Your task to perform on an android device: Open calendar and show me the third week of next month Image 0: 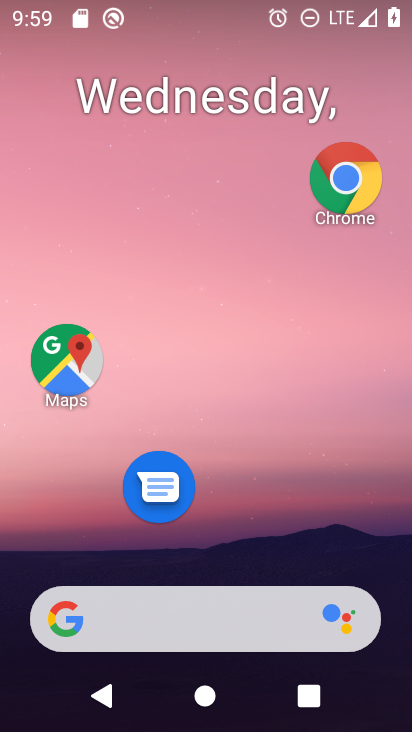
Step 0: drag from (203, 619) to (203, 43)
Your task to perform on an android device: Open calendar and show me the third week of next month Image 1: 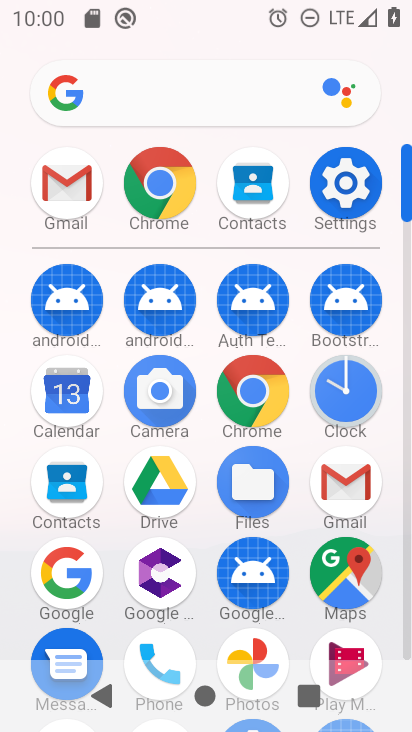
Step 1: drag from (156, 508) to (156, 222)
Your task to perform on an android device: Open calendar and show me the third week of next month Image 2: 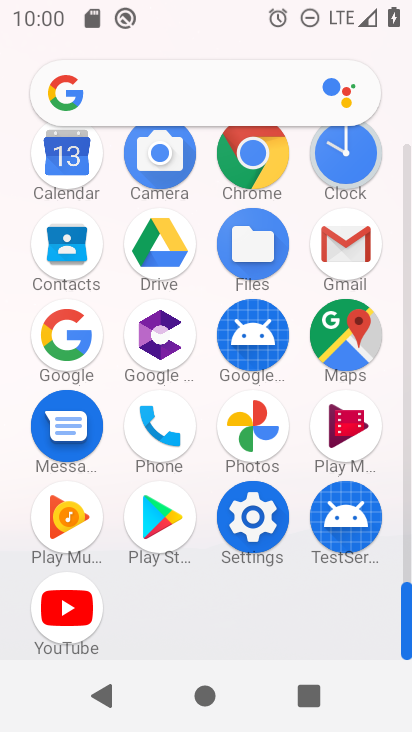
Step 2: click (62, 184)
Your task to perform on an android device: Open calendar and show me the third week of next month Image 3: 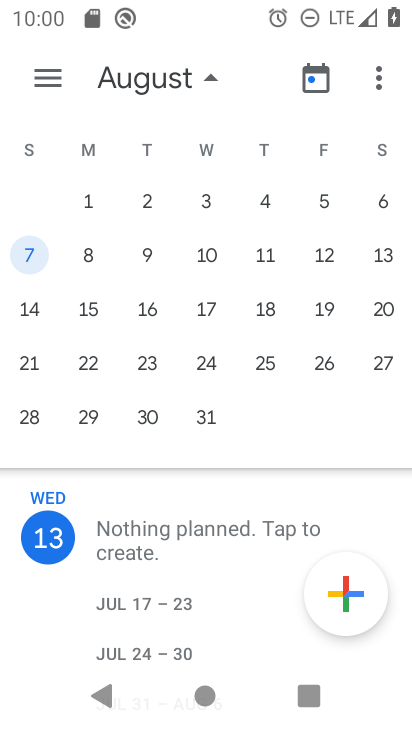
Step 3: click (31, 324)
Your task to perform on an android device: Open calendar and show me the third week of next month Image 4: 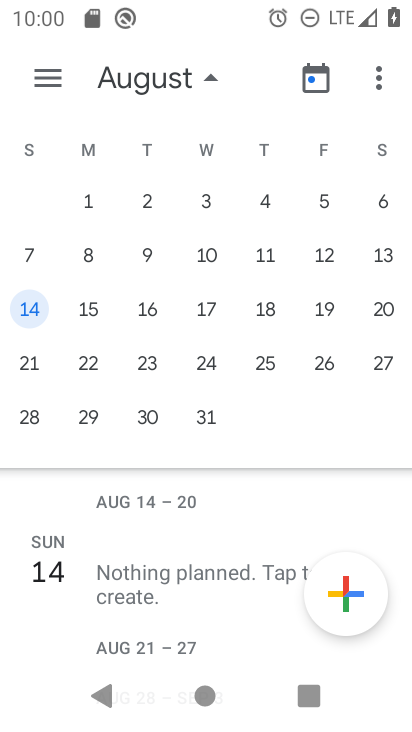
Step 4: click (99, 318)
Your task to perform on an android device: Open calendar and show me the third week of next month Image 5: 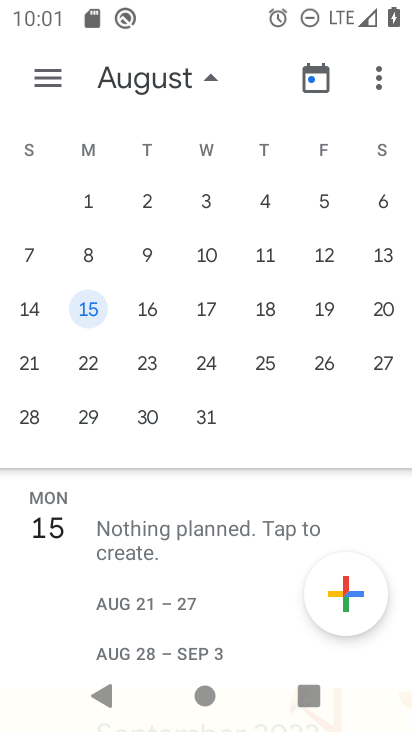
Step 5: task complete